Your task to perform on an android device: Search for Mexican restaurants on Maps Image 0: 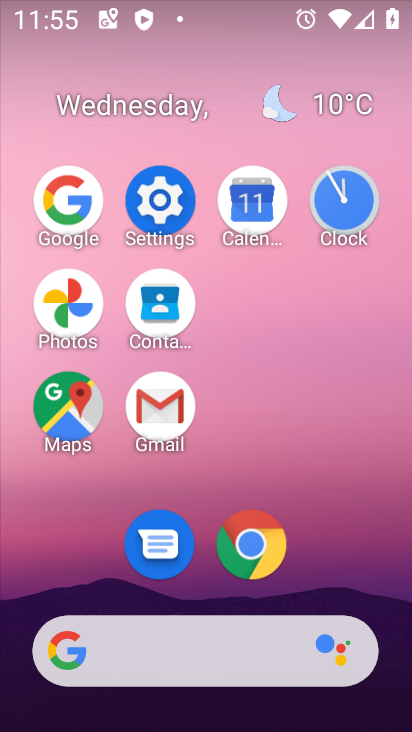
Step 0: click (74, 401)
Your task to perform on an android device: Search for Mexican restaurants on Maps Image 1: 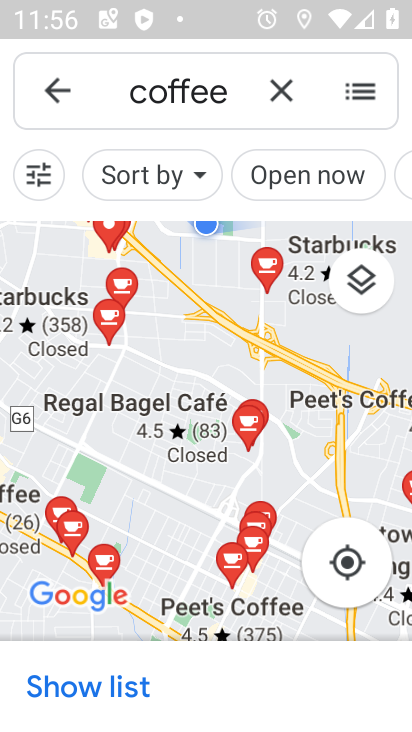
Step 1: click (278, 90)
Your task to perform on an android device: Search for Mexican restaurants on Maps Image 2: 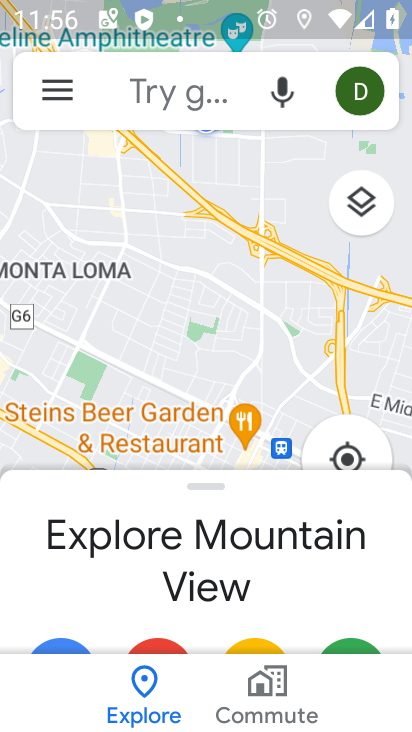
Step 2: click (173, 102)
Your task to perform on an android device: Search for Mexican restaurants on Maps Image 3: 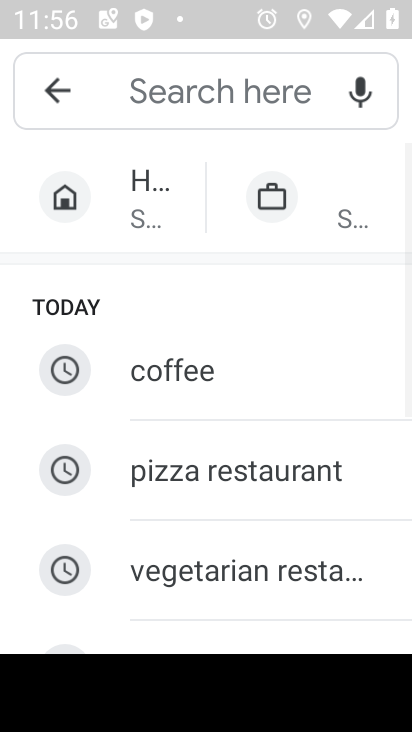
Step 3: drag from (249, 526) to (280, 148)
Your task to perform on an android device: Search for Mexican restaurants on Maps Image 4: 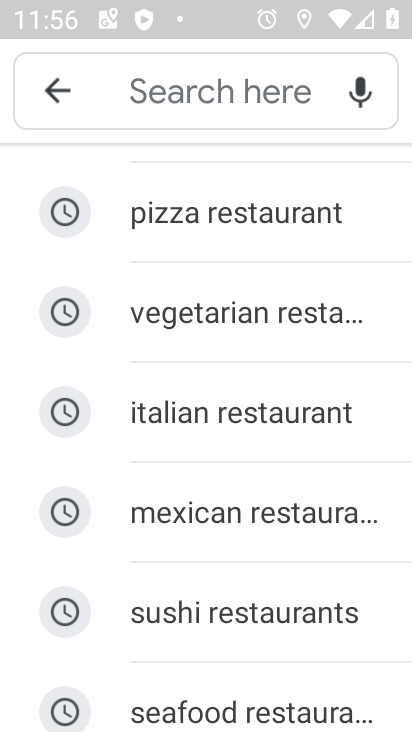
Step 4: click (228, 520)
Your task to perform on an android device: Search for Mexican restaurants on Maps Image 5: 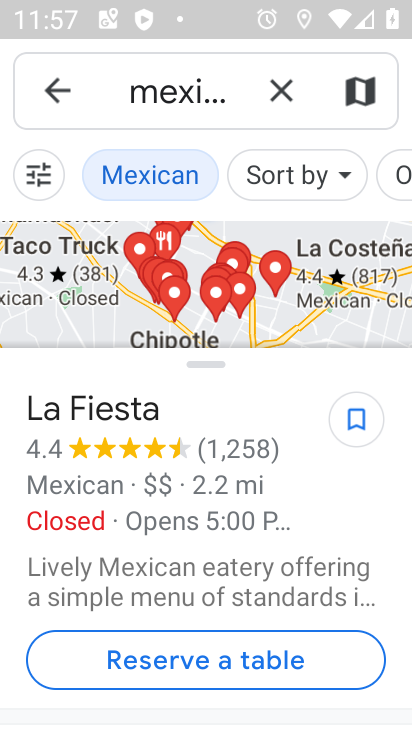
Step 5: task complete